Your task to perform on an android device: Open battery settings Image 0: 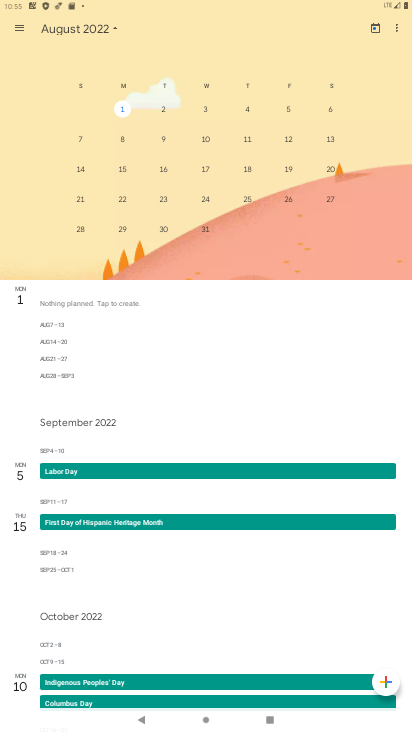
Step 0: press home button
Your task to perform on an android device: Open battery settings Image 1: 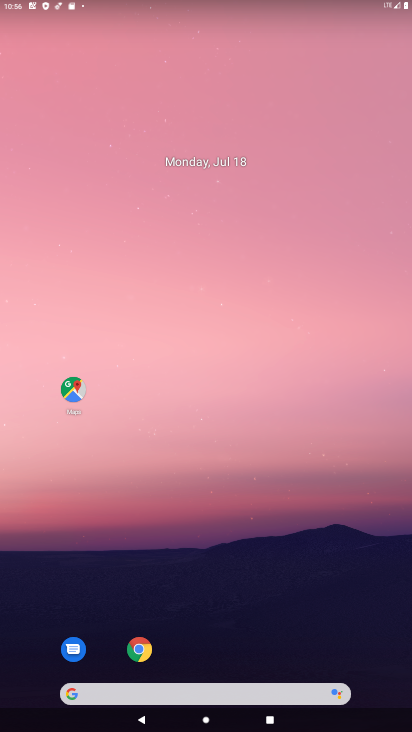
Step 1: drag from (173, 726) to (197, 33)
Your task to perform on an android device: Open battery settings Image 2: 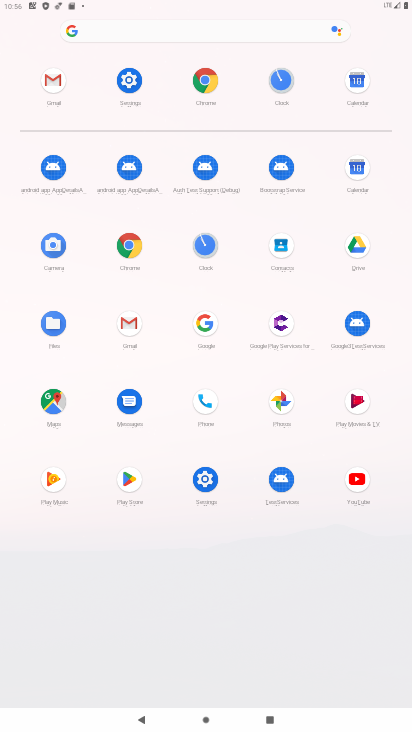
Step 2: click (134, 87)
Your task to perform on an android device: Open battery settings Image 3: 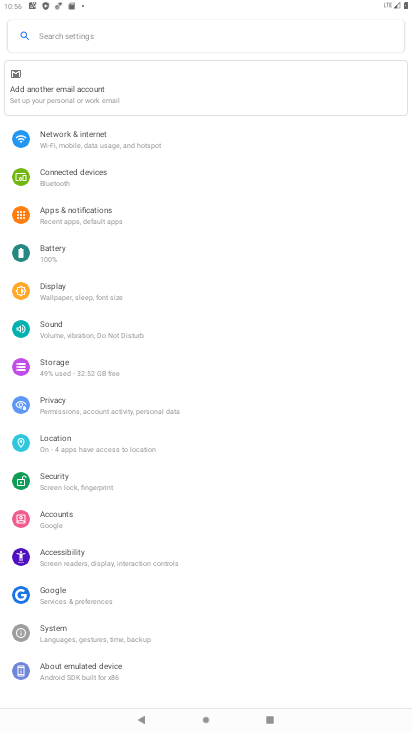
Step 3: click (60, 250)
Your task to perform on an android device: Open battery settings Image 4: 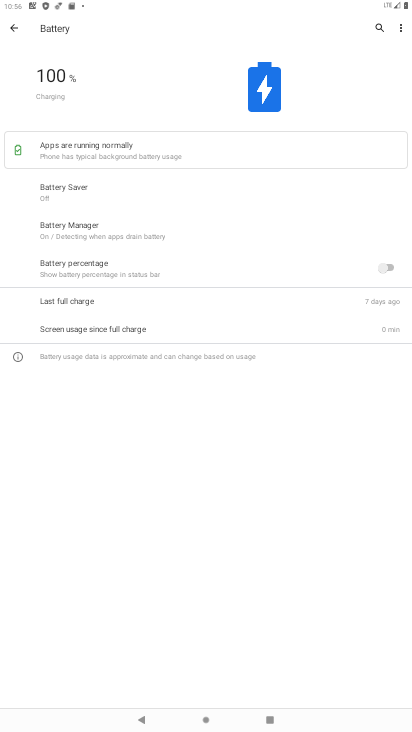
Step 4: task complete